Your task to perform on an android device: What's the news about the US economy? Image 0: 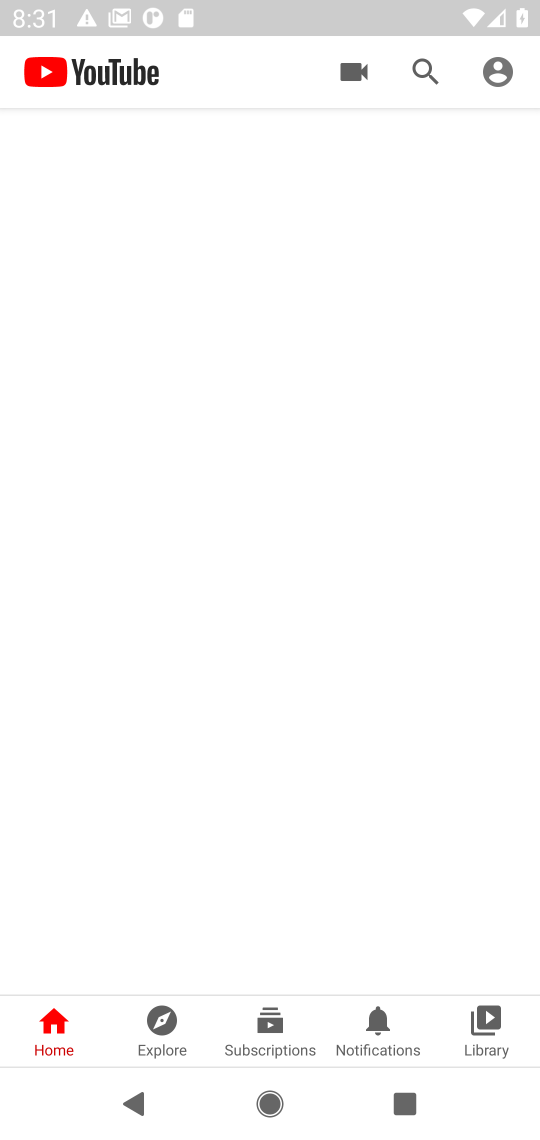
Step 0: press home button
Your task to perform on an android device: What's the news about the US economy? Image 1: 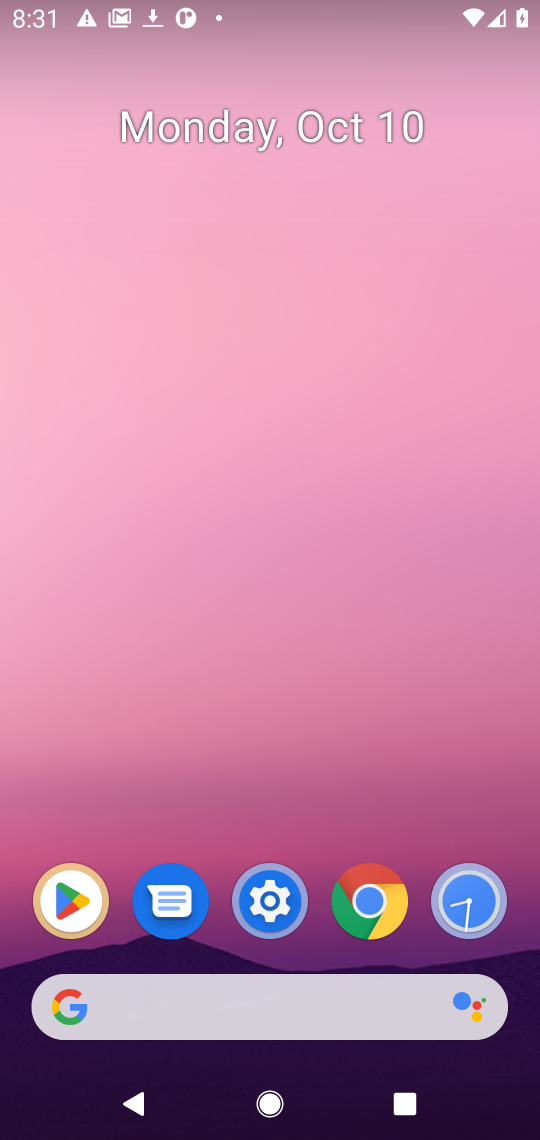
Step 1: click (237, 1000)
Your task to perform on an android device: What's the news about the US economy? Image 2: 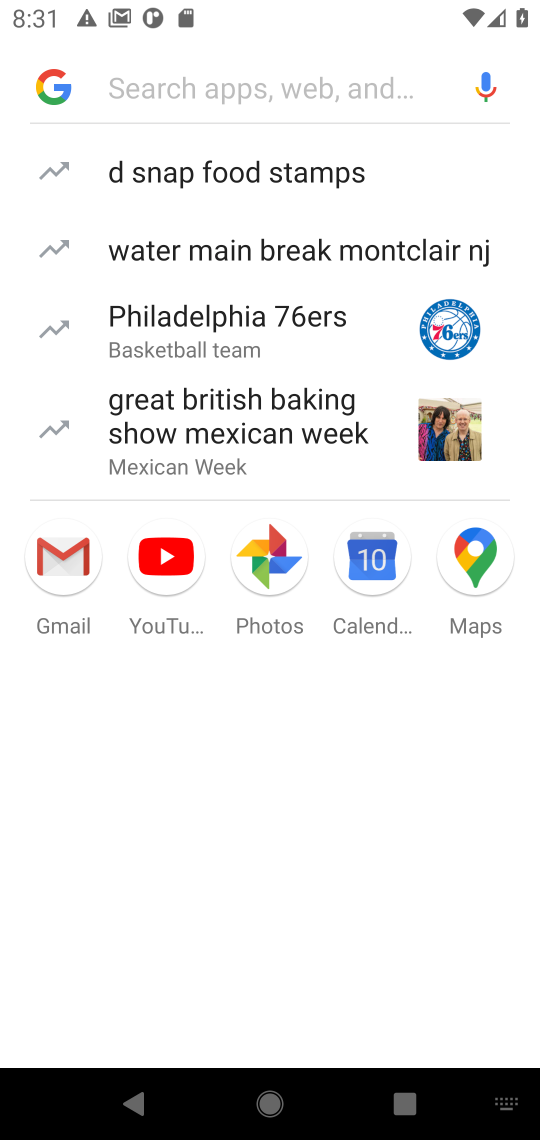
Step 2: type "What's the news about the US economy"
Your task to perform on an android device: What's the news about the US economy? Image 3: 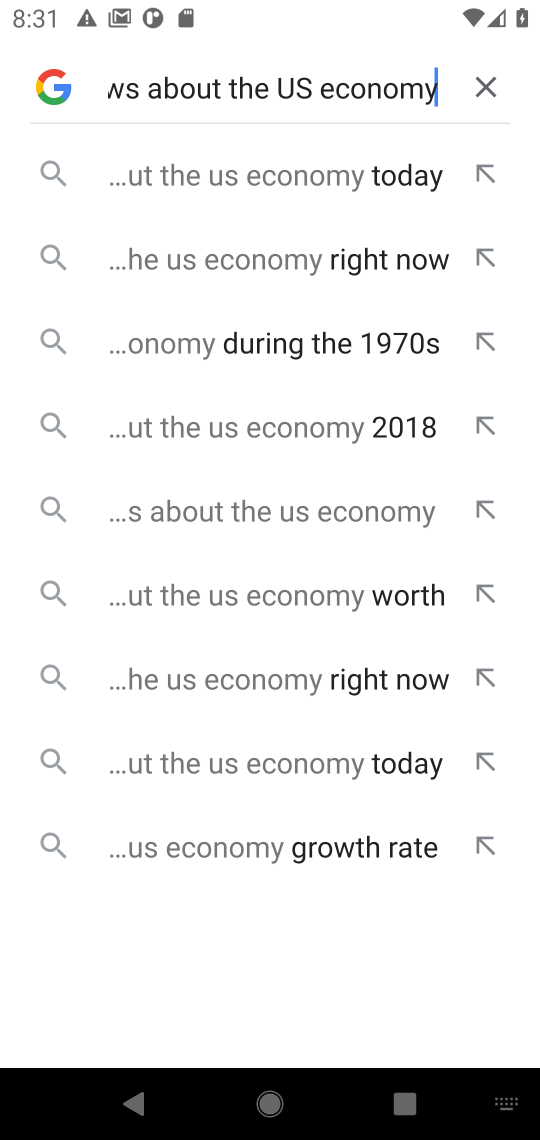
Step 3: press enter
Your task to perform on an android device: What's the news about the US economy? Image 4: 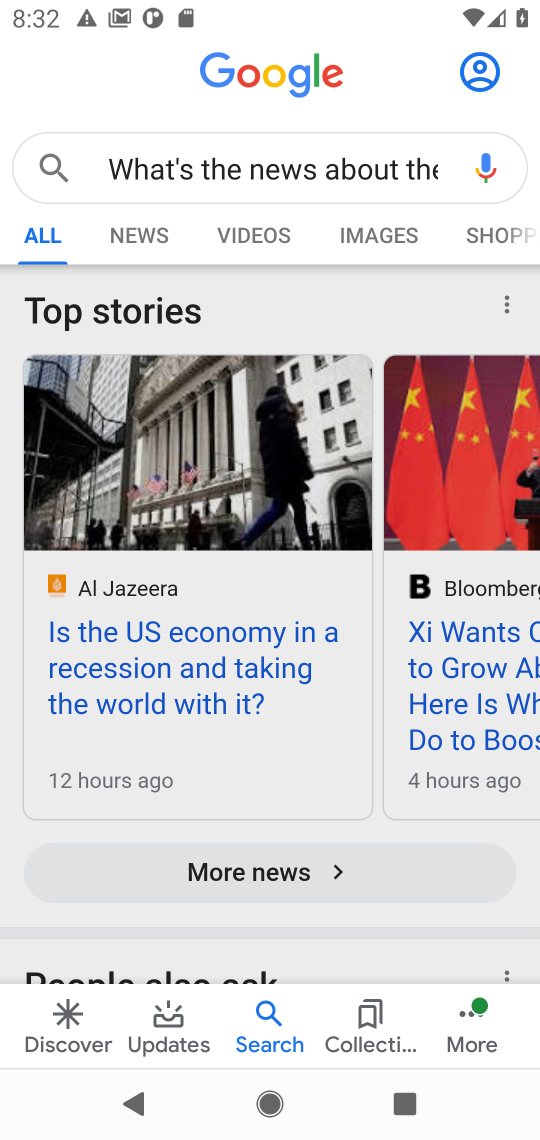
Step 4: drag from (339, 837) to (338, 498)
Your task to perform on an android device: What's the news about the US economy? Image 5: 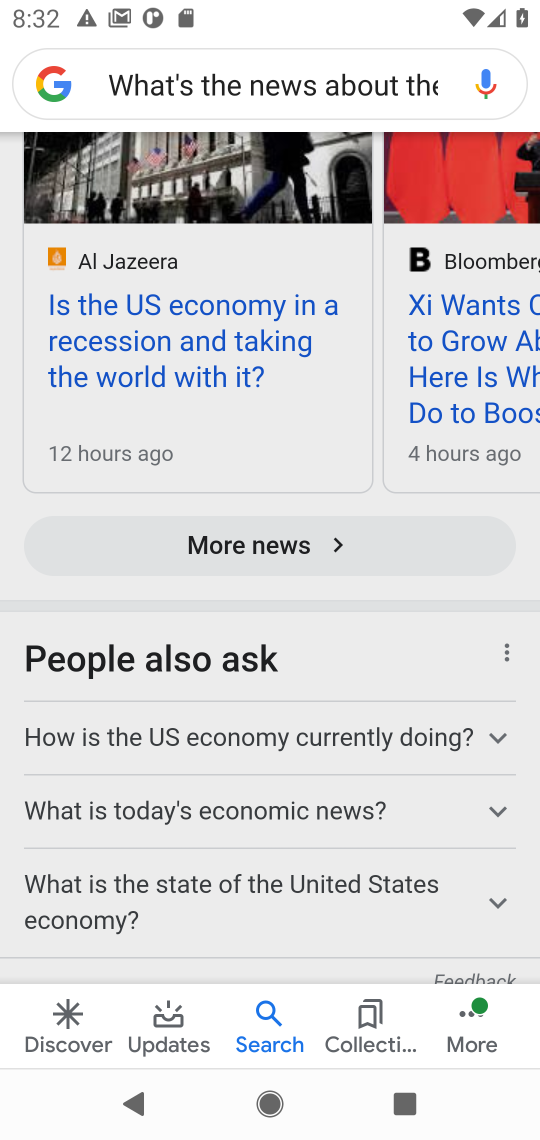
Step 5: drag from (306, 826) to (319, 456)
Your task to perform on an android device: What's the news about the US economy? Image 6: 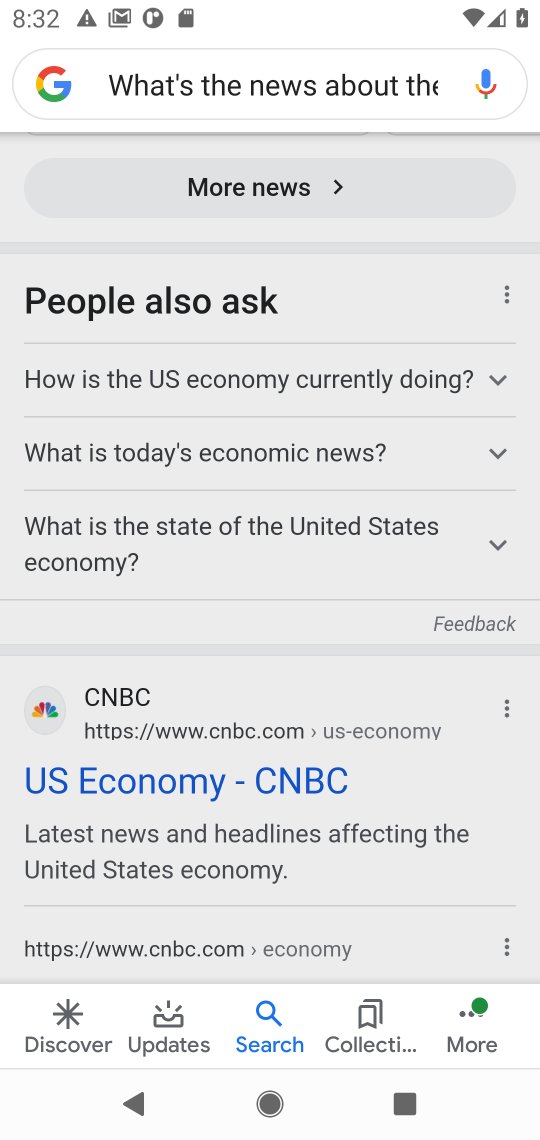
Step 6: click (219, 791)
Your task to perform on an android device: What's the news about the US economy? Image 7: 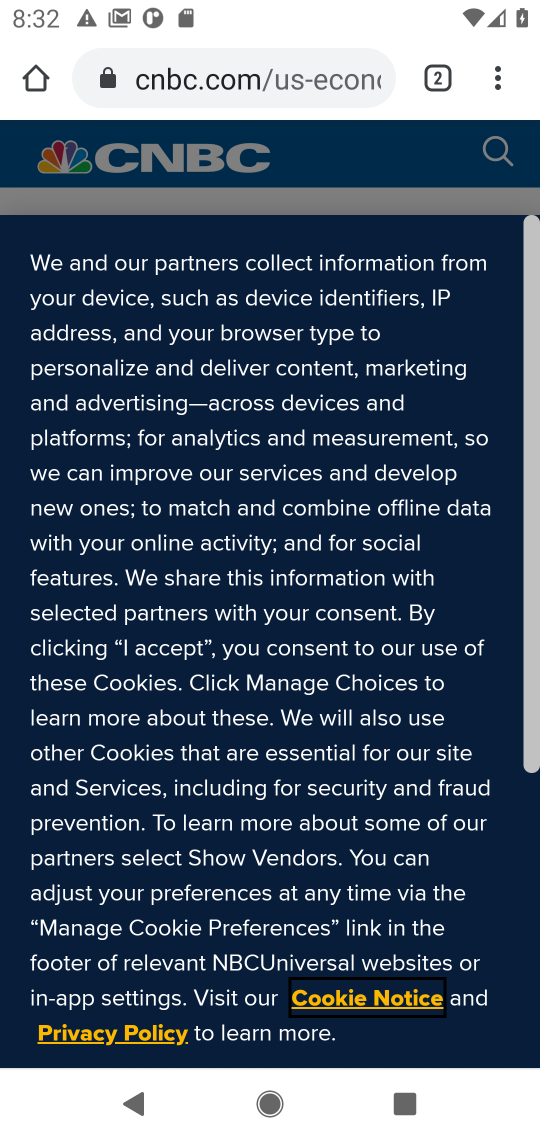
Step 7: drag from (373, 883) to (373, 414)
Your task to perform on an android device: What's the news about the US economy? Image 8: 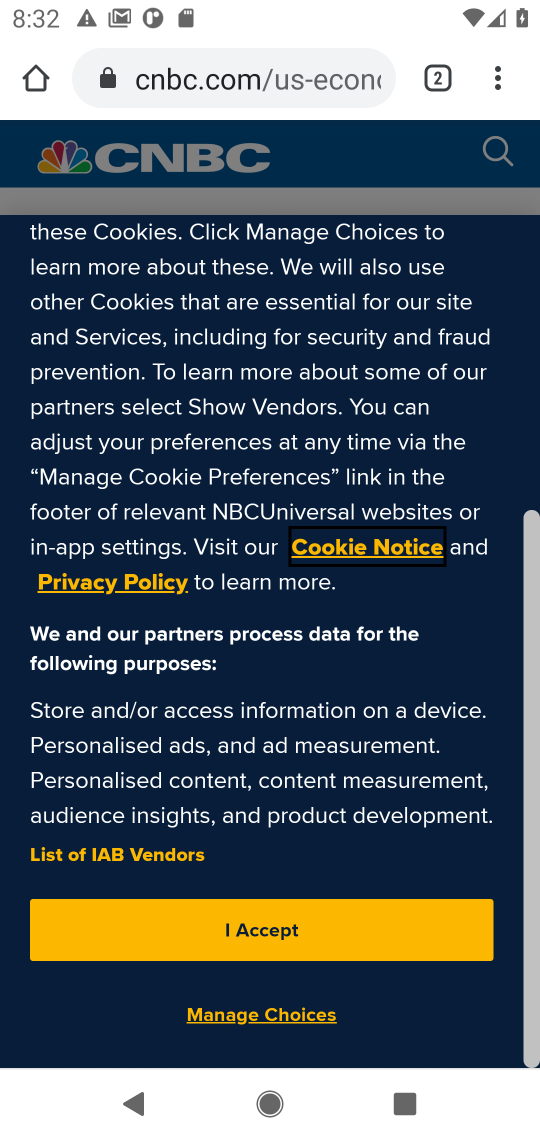
Step 8: drag from (383, 827) to (375, 464)
Your task to perform on an android device: What's the news about the US economy? Image 9: 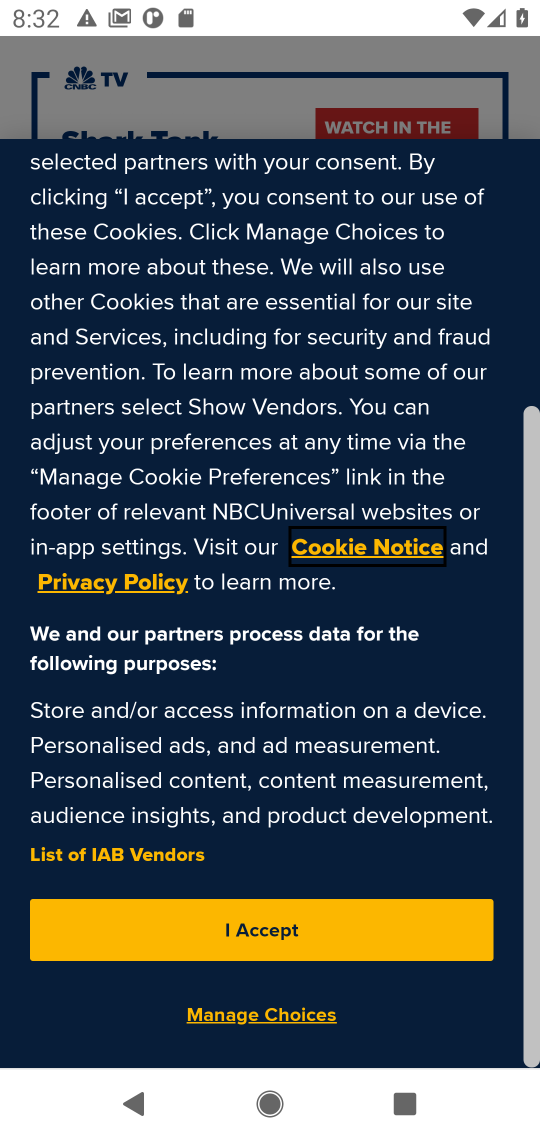
Step 9: click (260, 920)
Your task to perform on an android device: What's the news about the US economy? Image 10: 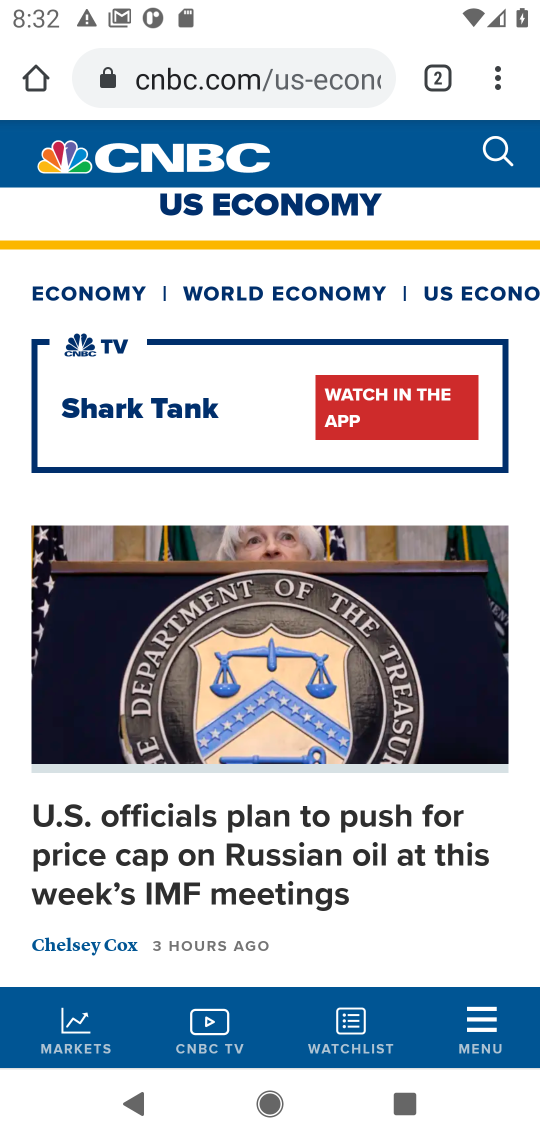
Step 10: task complete